Your task to perform on an android device: toggle translation in the chrome app Image 0: 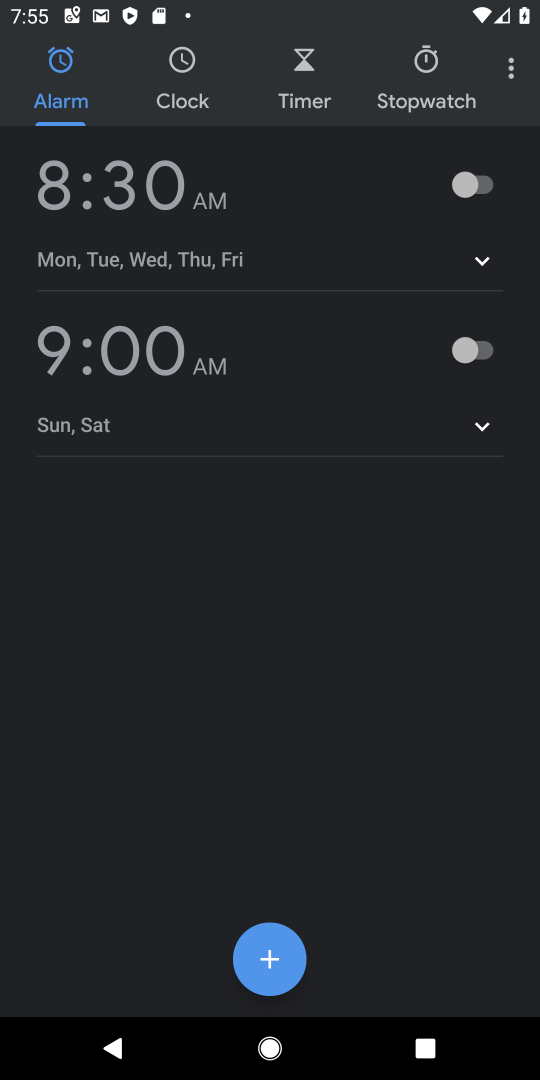
Step 0: press home button
Your task to perform on an android device: toggle translation in the chrome app Image 1: 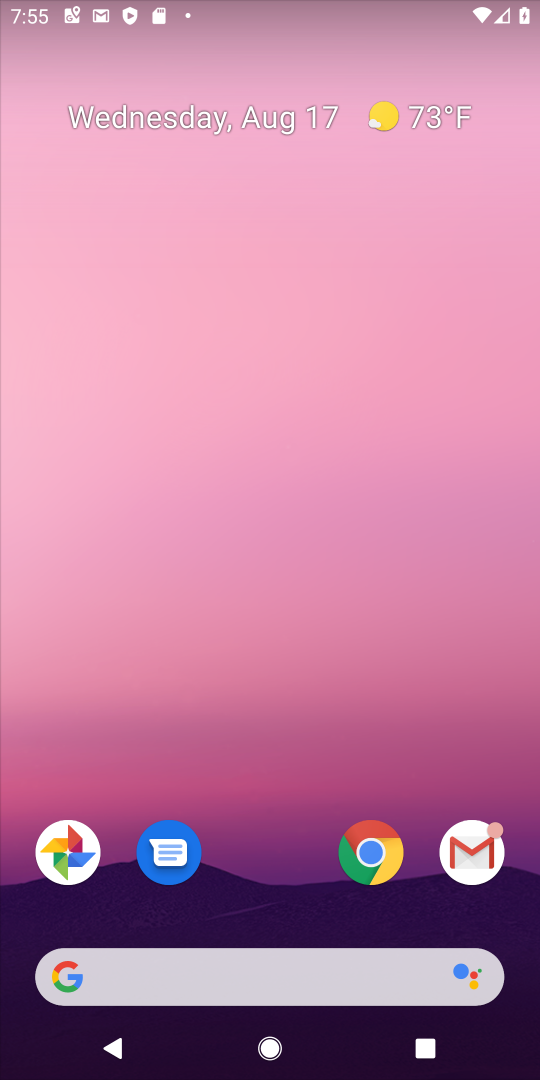
Step 1: click (374, 855)
Your task to perform on an android device: toggle translation in the chrome app Image 2: 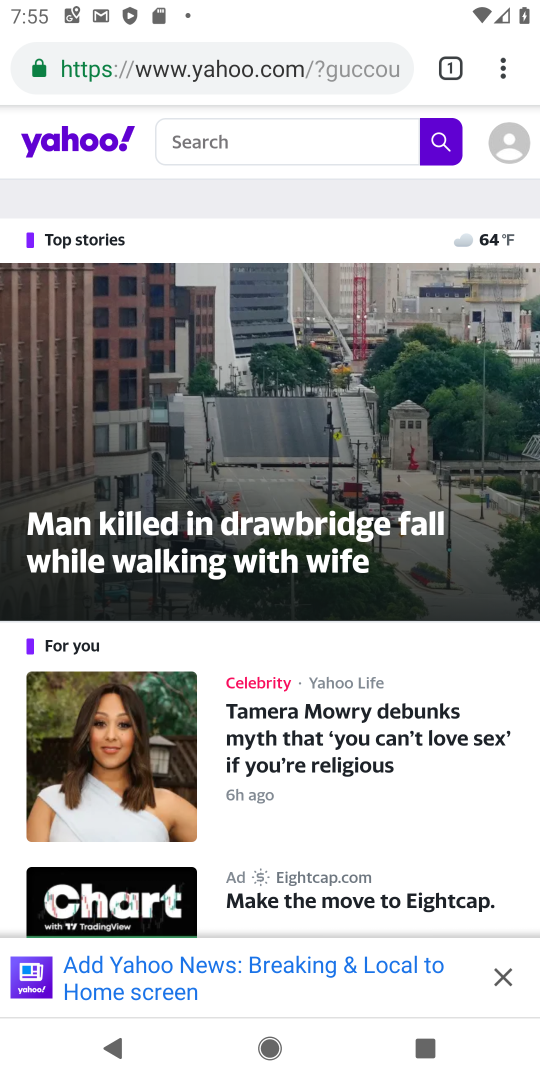
Step 2: click (500, 63)
Your task to perform on an android device: toggle translation in the chrome app Image 3: 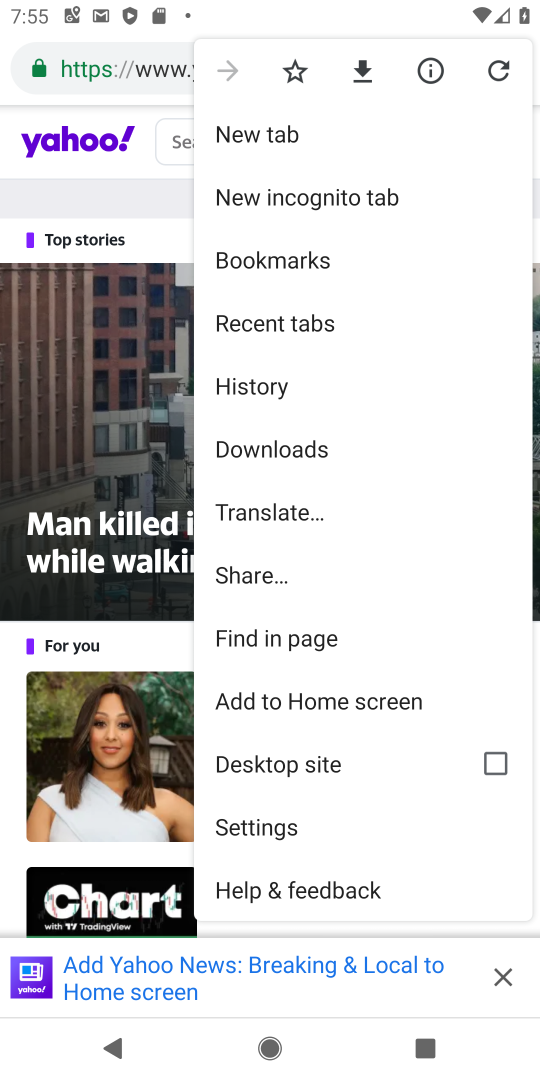
Step 3: click (268, 824)
Your task to perform on an android device: toggle translation in the chrome app Image 4: 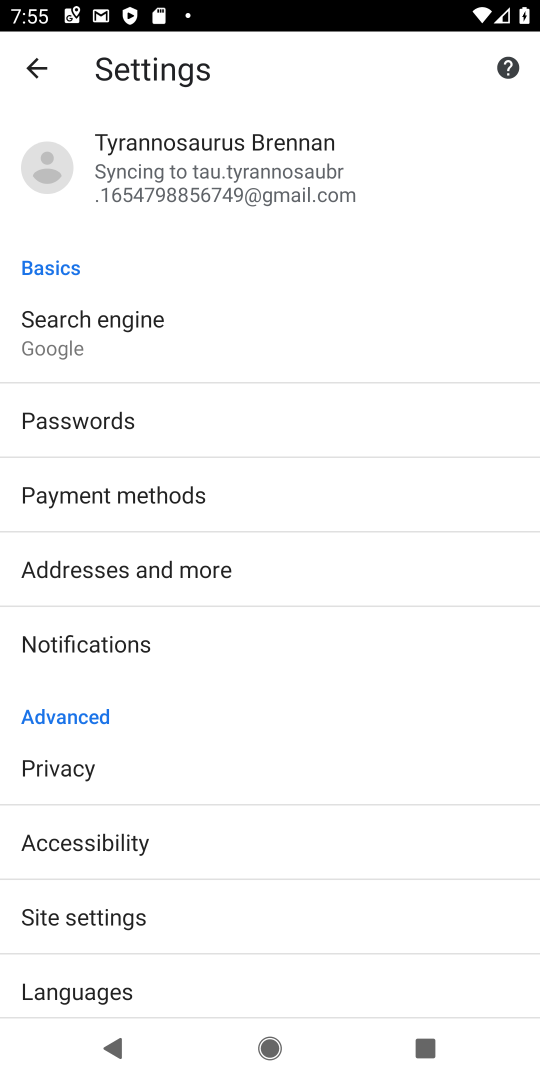
Step 4: click (104, 983)
Your task to perform on an android device: toggle translation in the chrome app Image 5: 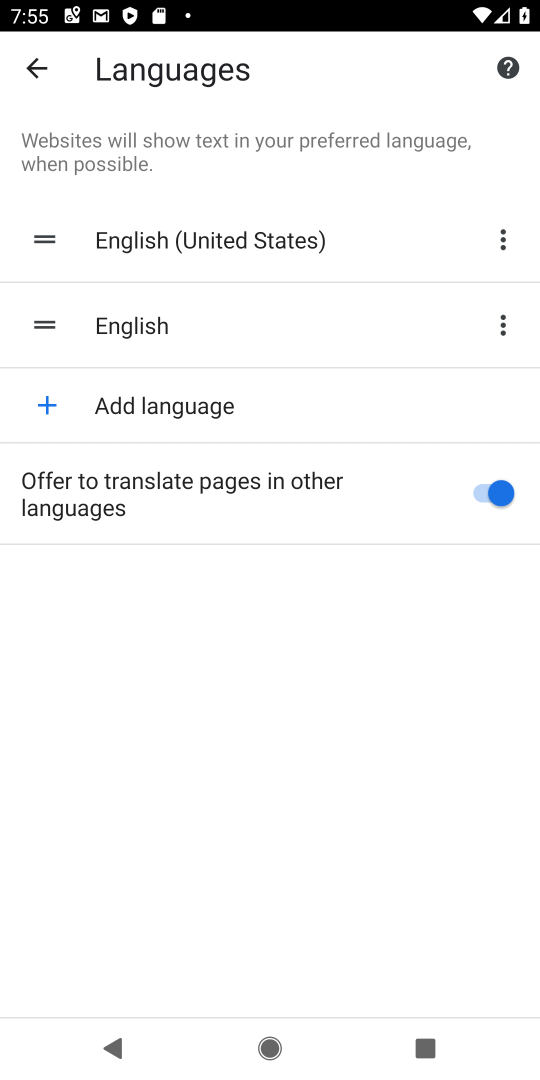
Step 5: click (503, 490)
Your task to perform on an android device: toggle translation in the chrome app Image 6: 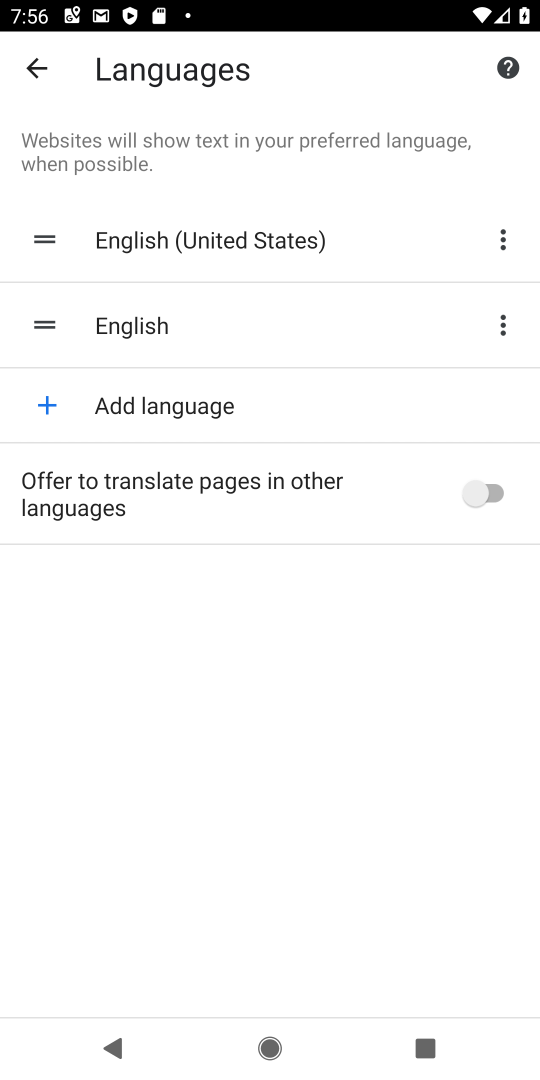
Step 6: task complete